Your task to perform on an android device: Open Chrome and go to settings Image 0: 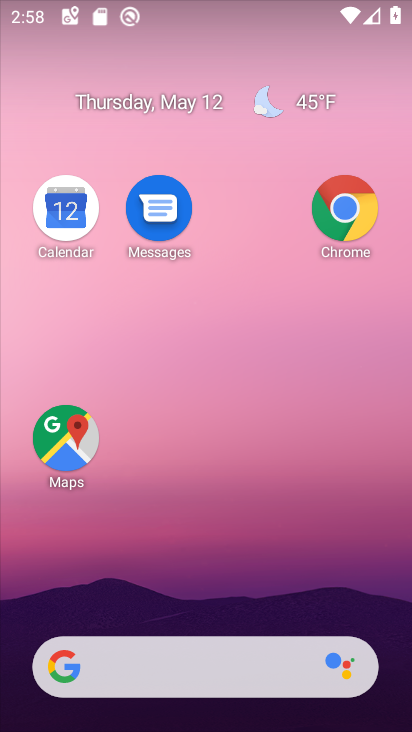
Step 0: click (349, 223)
Your task to perform on an android device: Open Chrome and go to settings Image 1: 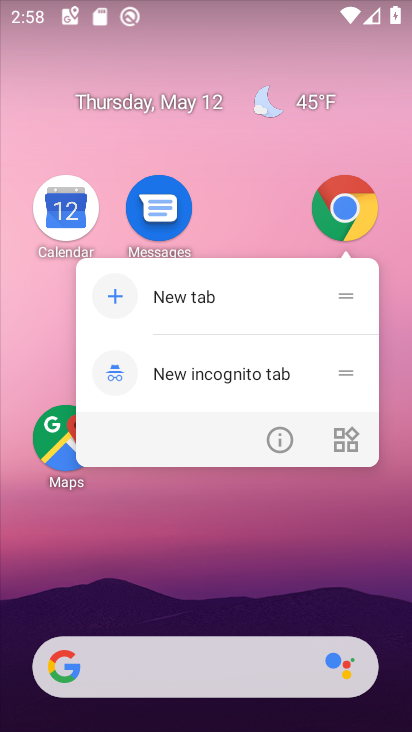
Step 1: click (283, 423)
Your task to perform on an android device: Open Chrome and go to settings Image 2: 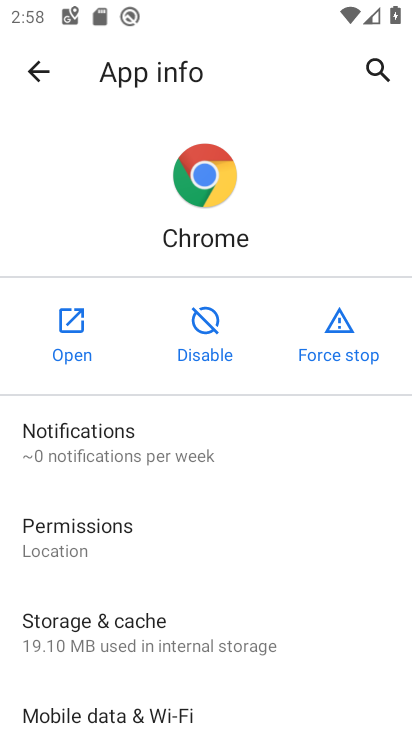
Step 2: click (68, 323)
Your task to perform on an android device: Open Chrome and go to settings Image 3: 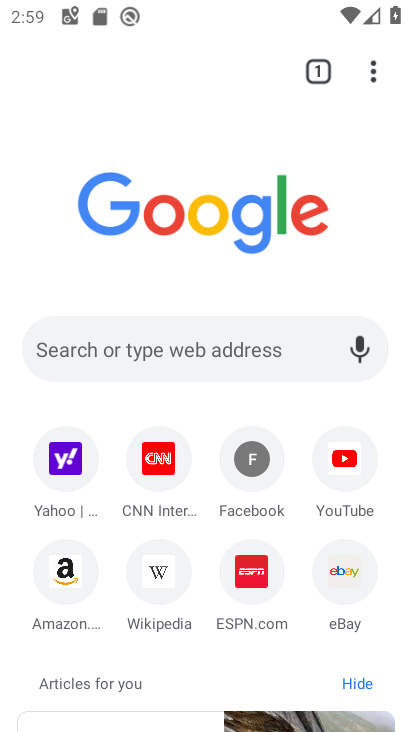
Step 3: drag from (197, 589) to (225, 213)
Your task to perform on an android device: Open Chrome and go to settings Image 4: 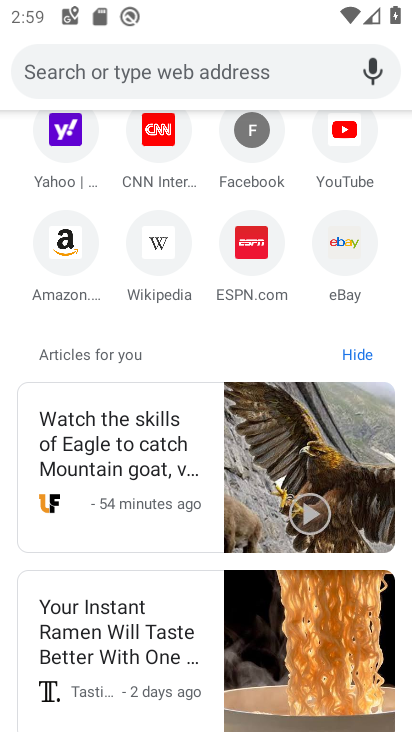
Step 4: drag from (227, 207) to (313, 710)
Your task to perform on an android device: Open Chrome and go to settings Image 5: 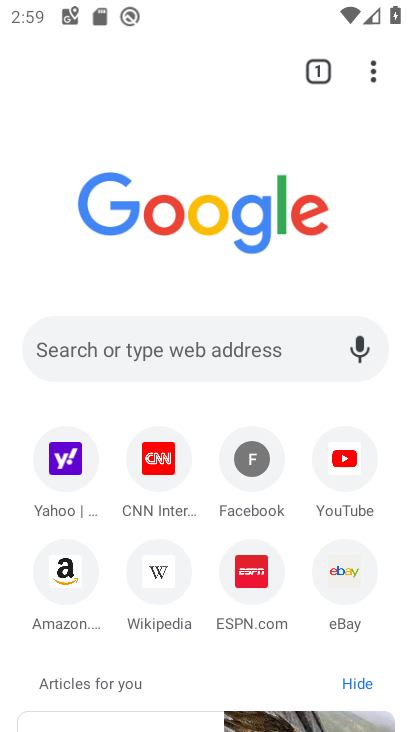
Step 5: click (367, 71)
Your task to perform on an android device: Open Chrome and go to settings Image 6: 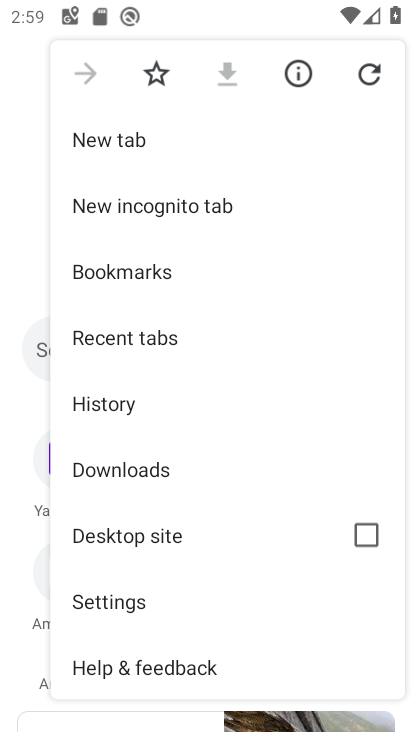
Step 6: click (137, 603)
Your task to perform on an android device: Open Chrome and go to settings Image 7: 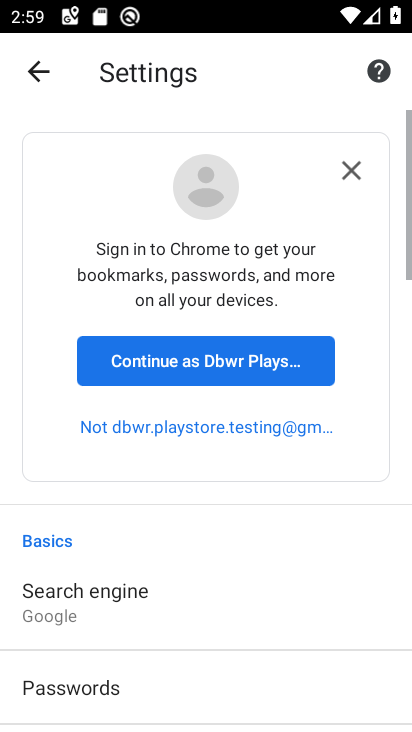
Step 7: task complete